Your task to perform on an android device: Open my contact list Image 0: 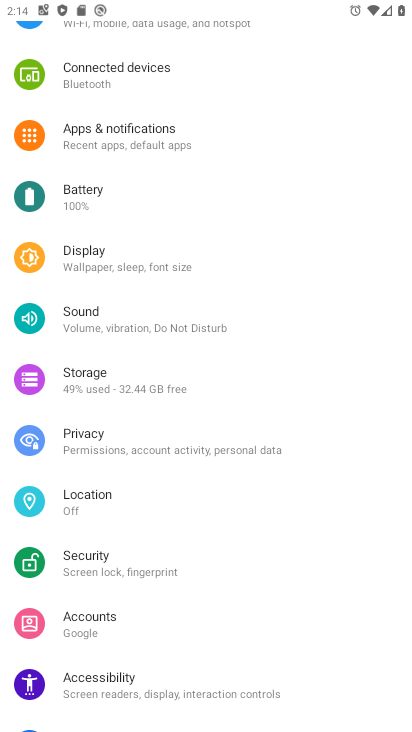
Step 0: press home button
Your task to perform on an android device: Open my contact list Image 1: 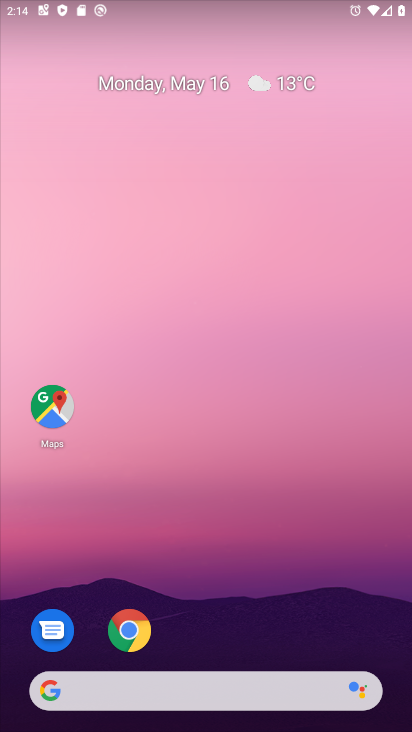
Step 1: drag from (273, 613) to (252, 218)
Your task to perform on an android device: Open my contact list Image 2: 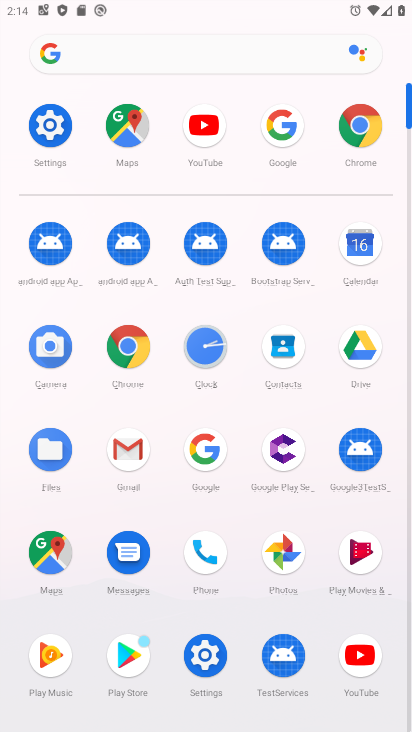
Step 2: click (279, 330)
Your task to perform on an android device: Open my contact list Image 3: 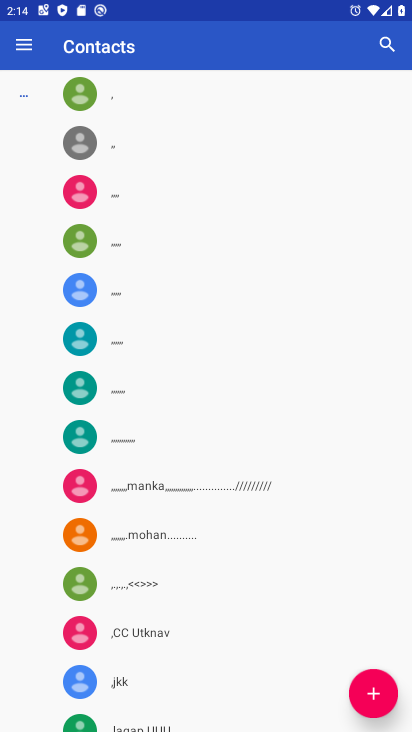
Step 3: task complete